Your task to perform on an android device: turn notification dots on Image 0: 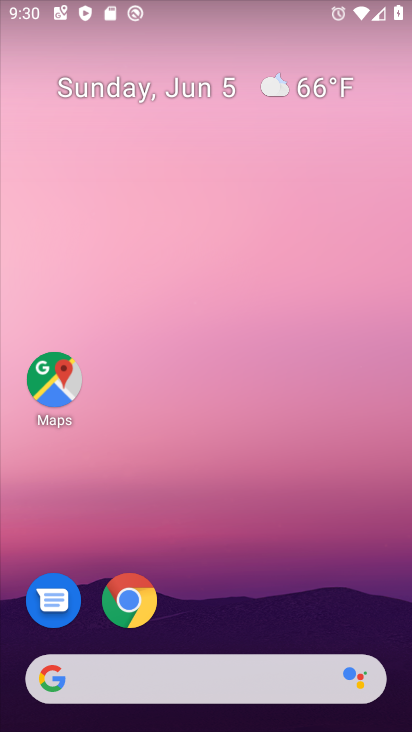
Step 0: drag from (396, 642) to (253, 84)
Your task to perform on an android device: turn notification dots on Image 1: 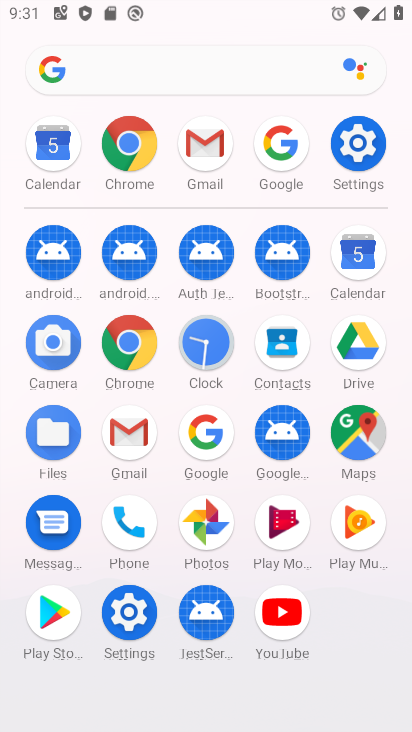
Step 1: click (360, 152)
Your task to perform on an android device: turn notification dots on Image 2: 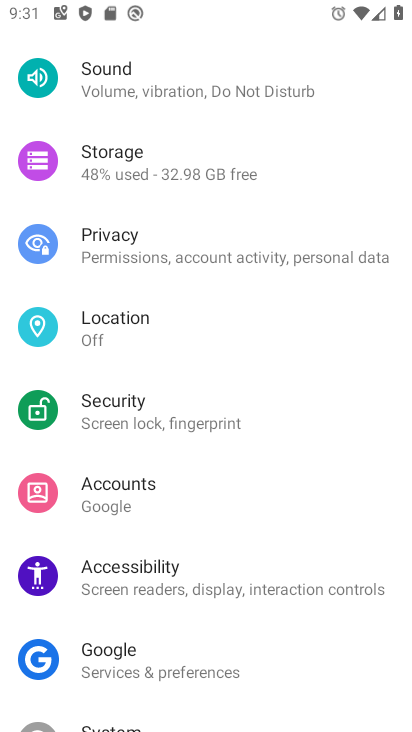
Step 2: drag from (171, 138) to (256, 579)
Your task to perform on an android device: turn notification dots on Image 3: 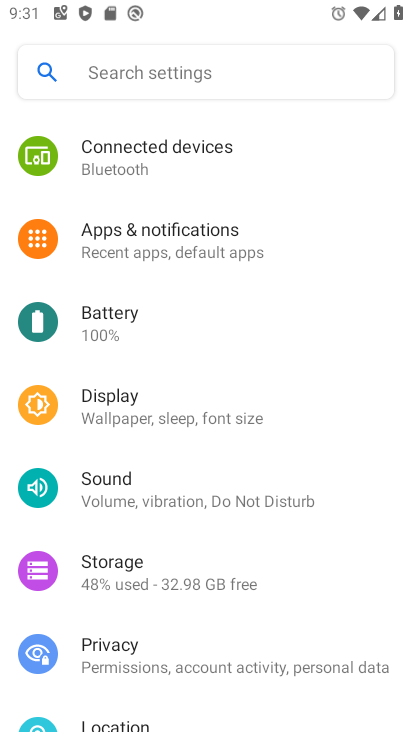
Step 3: click (196, 248)
Your task to perform on an android device: turn notification dots on Image 4: 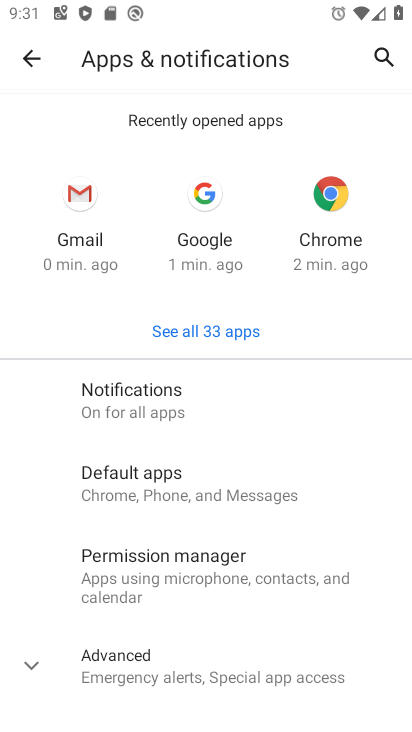
Step 4: click (188, 383)
Your task to perform on an android device: turn notification dots on Image 5: 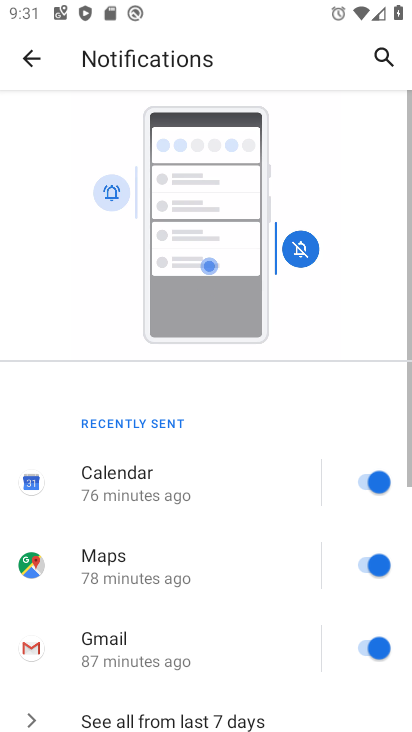
Step 5: drag from (134, 661) to (131, 145)
Your task to perform on an android device: turn notification dots on Image 6: 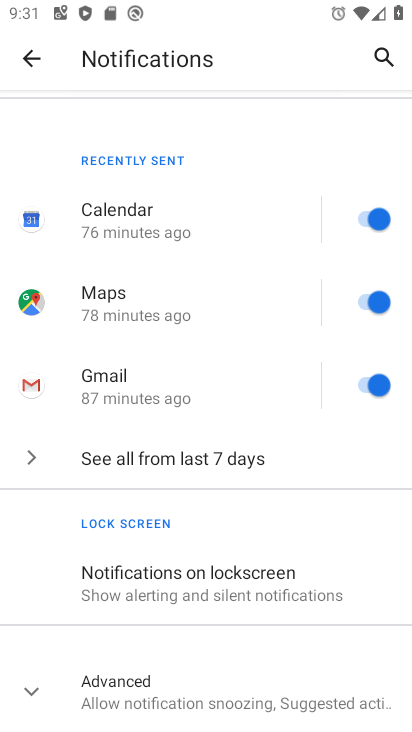
Step 6: click (133, 683)
Your task to perform on an android device: turn notification dots on Image 7: 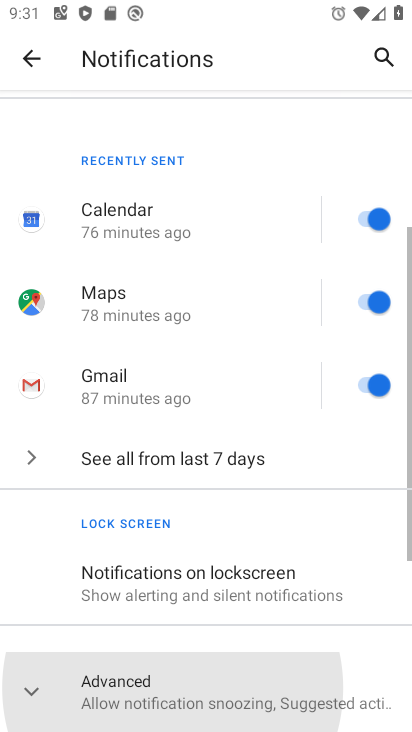
Step 7: click (132, 684)
Your task to perform on an android device: turn notification dots on Image 8: 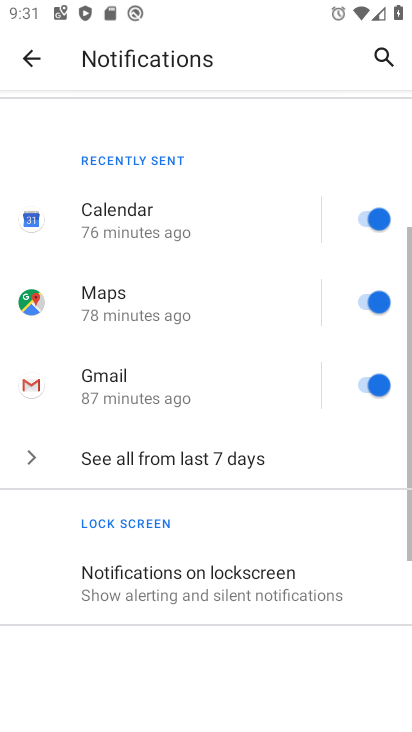
Step 8: drag from (174, 535) to (191, 151)
Your task to perform on an android device: turn notification dots on Image 9: 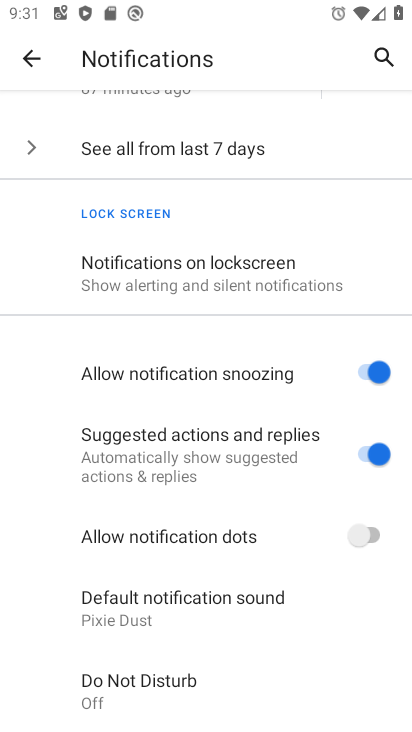
Step 9: click (337, 524)
Your task to perform on an android device: turn notification dots on Image 10: 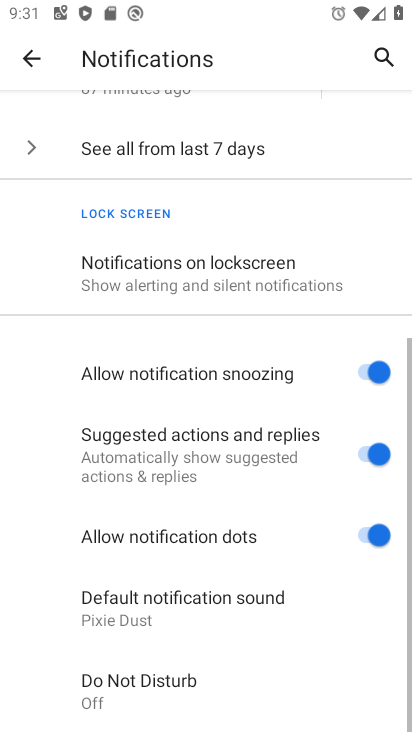
Step 10: task complete